Your task to perform on an android device: turn off wifi Image 0: 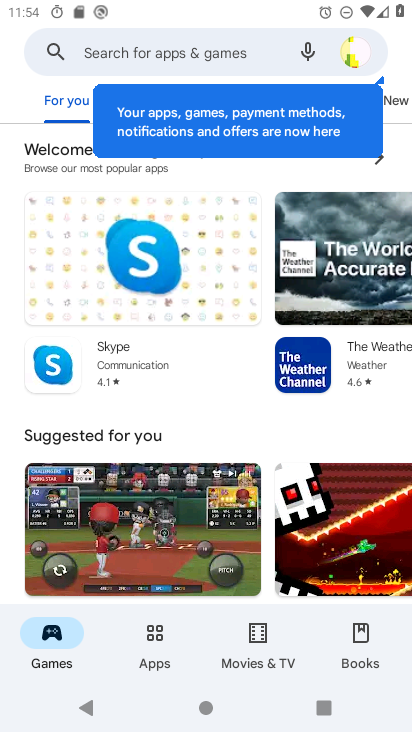
Step 0: press home button
Your task to perform on an android device: turn off wifi Image 1: 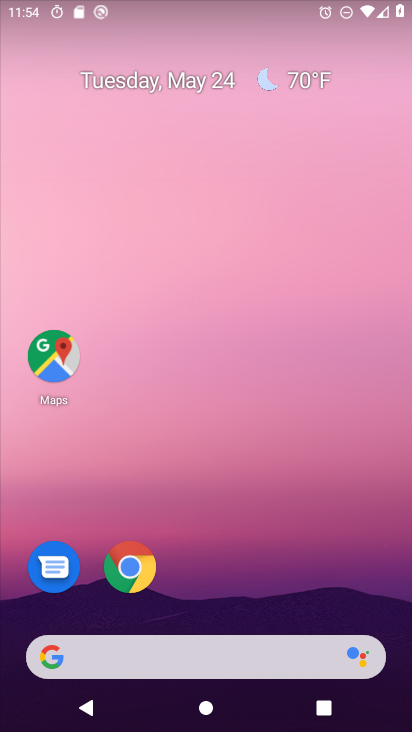
Step 1: drag from (401, 504) to (390, 182)
Your task to perform on an android device: turn off wifi Image 2: 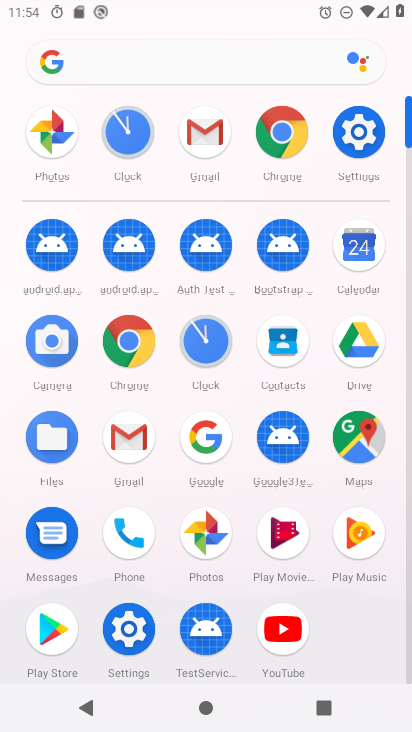
Step 2: click (354, 139)
Your task to perform on an android device: turn off wifi Image 3: 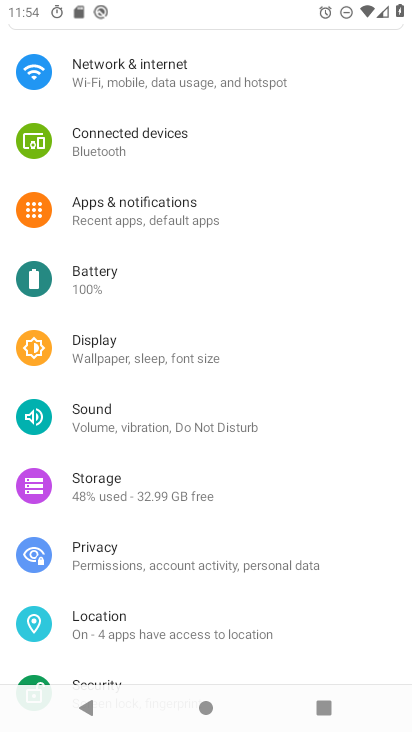
Step 3: drag from (262, 77) to (286, 402)
Your task to perform on an android device: turn off wifi Image 4: 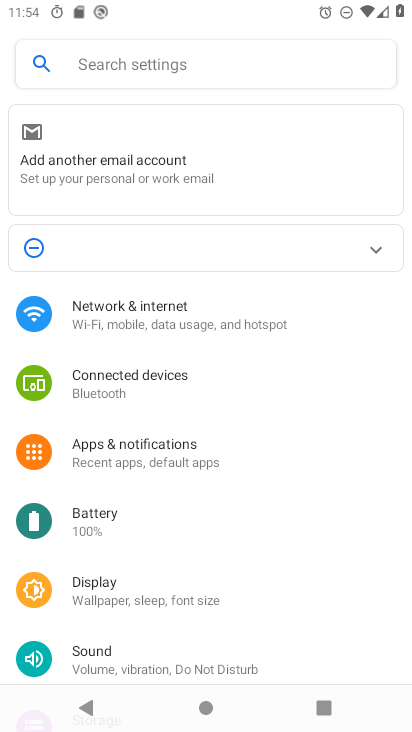
Step 4: click (124, 305)
Your task to perform on an android device: turn off wifi Image 5: 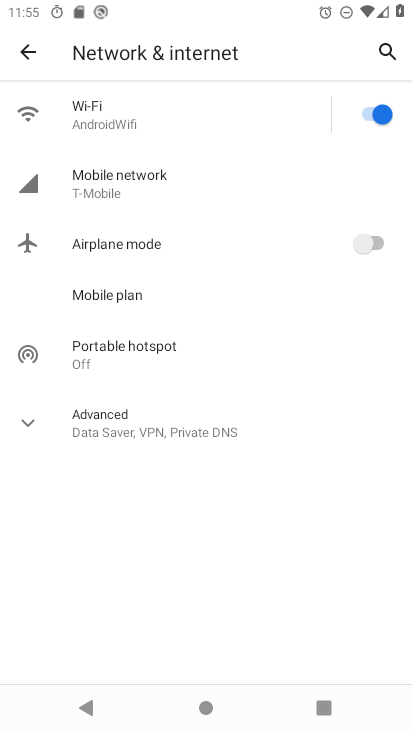
Step 5: click (368, 117)
Your task to perform on an android device: turn off wifi Image 6: 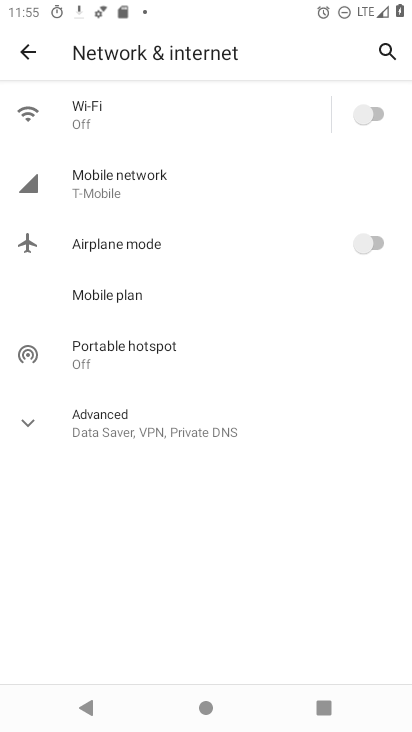
Step 6: task complete